Your task to perform on an android device: Go to accessibility settings Image 0: 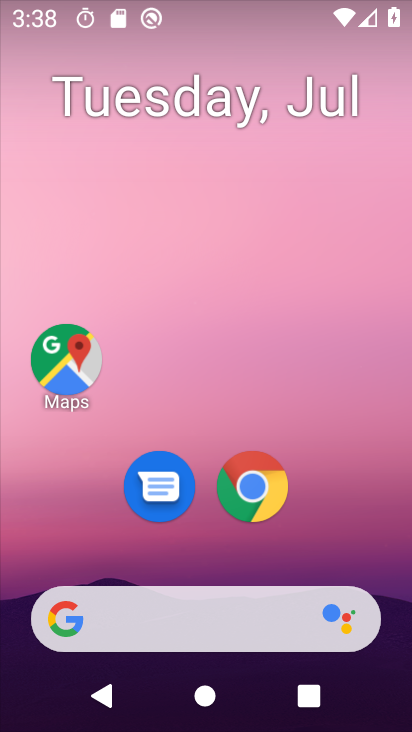
Step 0: press home button
Your task to perform on an android device: Go to accessibility settings Image 1: 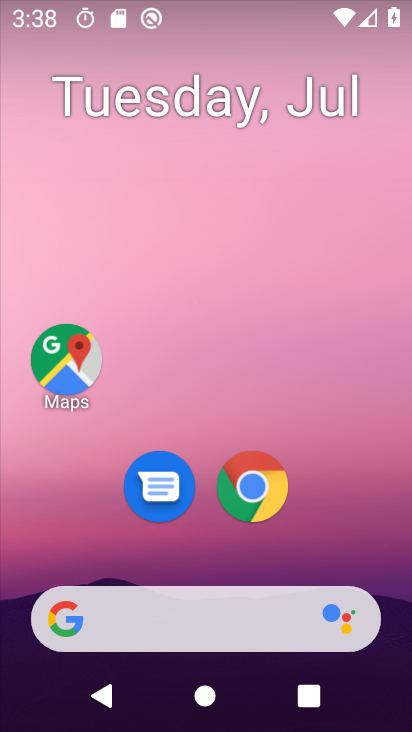
Step 1: drag from (331, 541) to (308, 28)
Your task to perform on an android device: Go to accessibility settings Image 2: 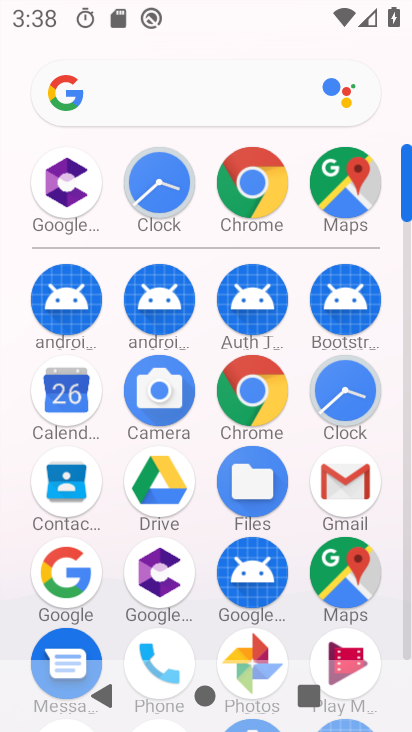
Step 2: drag from (391, 473) to (385, 196)
Your task to perform on an android device: Go to accessibility settings Image 3: 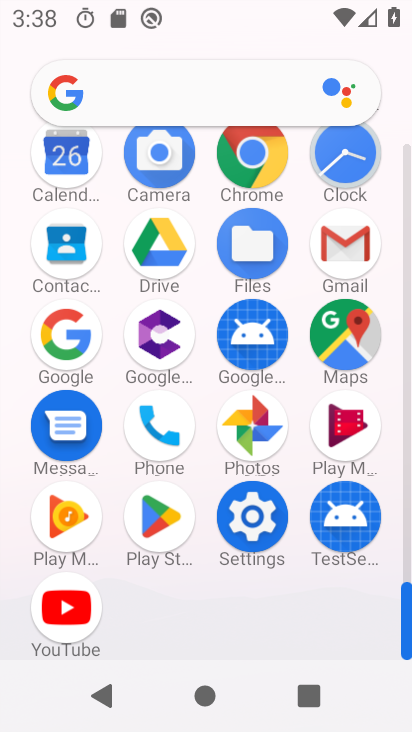
Step 3: click (254, 519)
Your task to perform on an android device: Go to accessibility settings Image 4: 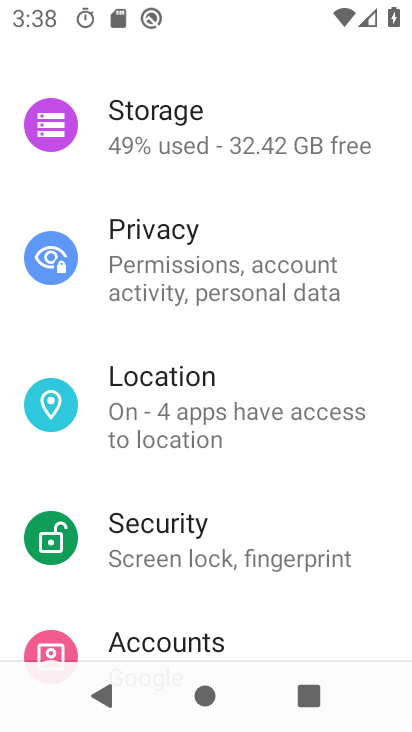
Step 4: drag from (363, 280) to (372, 387)
Your task to perform on an android device: Go to accessibility settings Image 5: 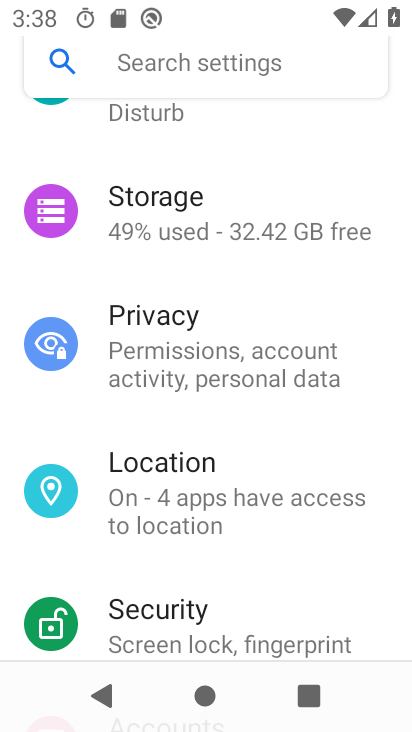
Step 5: drag from (368, 192) to (371, 332)
Your task to perform on an android device: Go to accessibility settings Image 6: 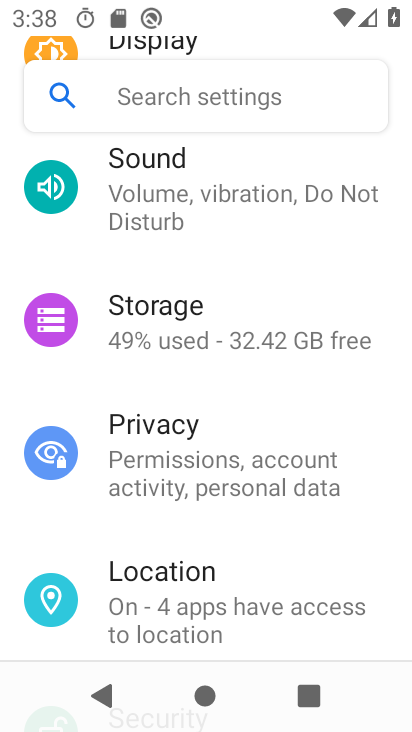
Step 6: drag from (382, 185) to (380, 353)
Your task to perform on an android device: Go to accessibility settings Image 7: 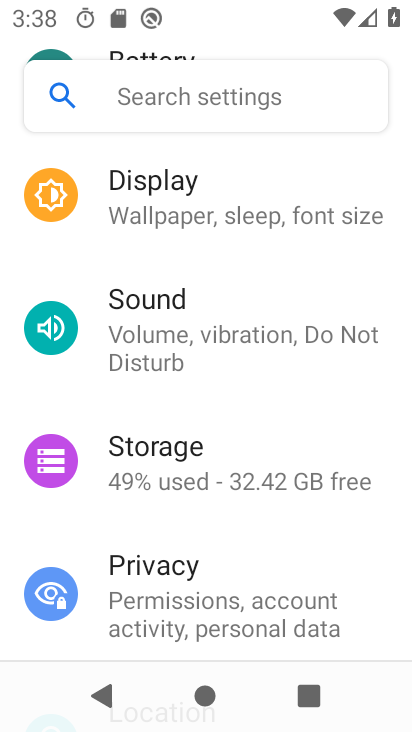
Step 7: drag from (376, 154) to (376, 331)
Your task to perform on an android device: Go to accessibility settings Image 8: 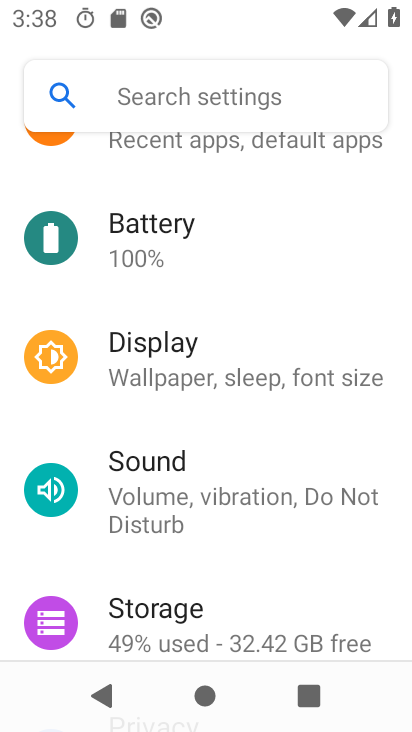
Step 8: drag from (353, 200) to (355, 332)
Your task to perform on an android device: Go to accessibility settings Image 9: 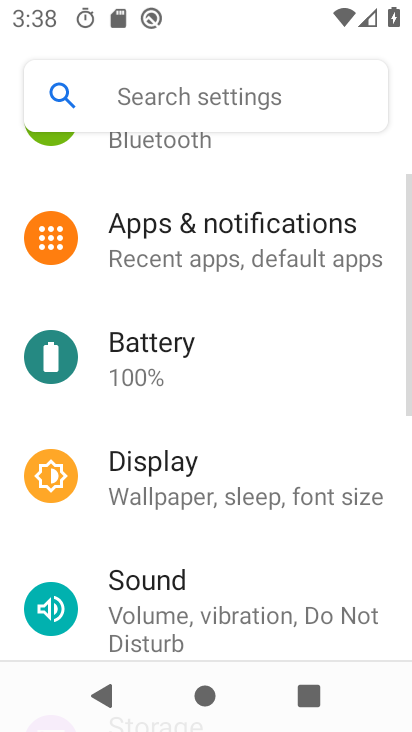
Step 9: drag from (348, 488) to (349, 369)
Your task to perform on an android device: Go to accessibility settings Image 10: 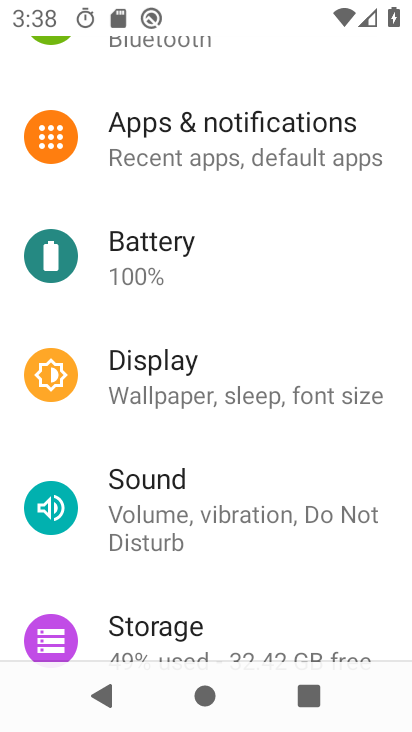
Step 10: drag from (338, 503) to (336, 353)
Your task to perform on an android device: Go to accessibility settings Image 11: 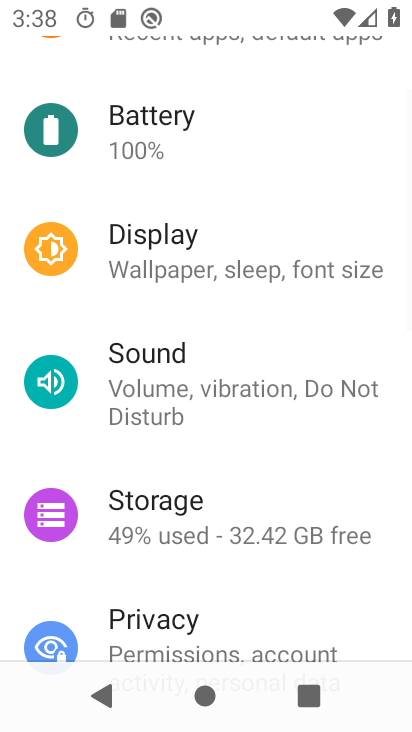
Step 11: drag from (338, 526) to (328, 403)
Your task to perform on an android device: Go to accessibility settings Image 12: 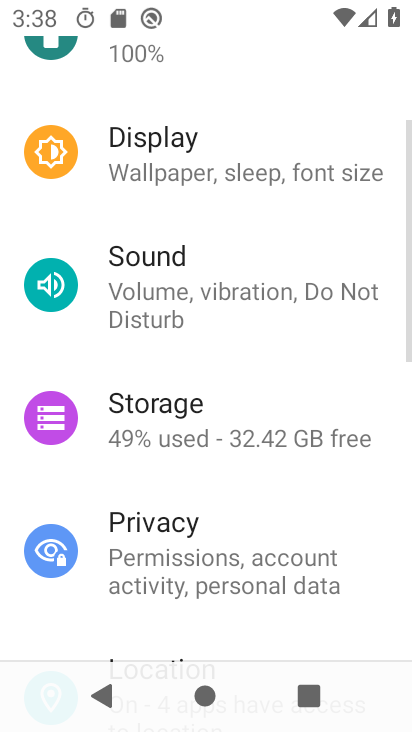
Step 12: drag from (332, 527) to (327, 419)
Your task to perform on an android device: Go to accessibility settings Image 13: 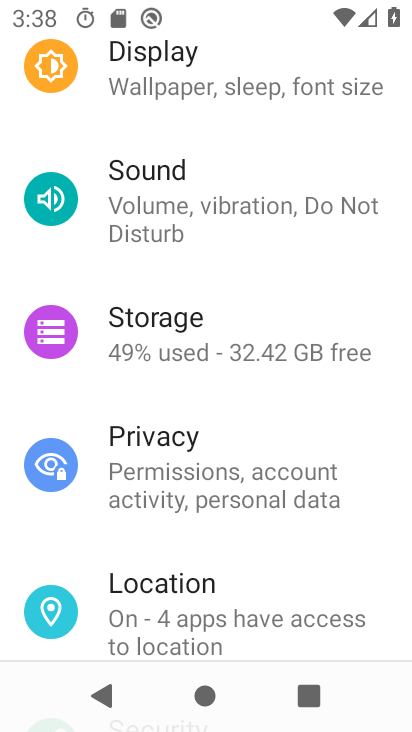
Step 13: drag from (329, 594) to (332, 444)
Your task to perform on an android device: Go to accessibility settings Image 14: 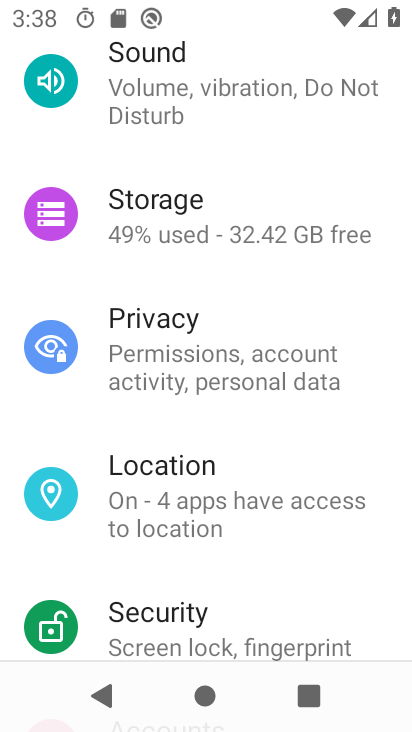
Step 14: drag from (332, 595) to (333, 430)
Your task to perform on an android device: Go to accessibility settings Image 15: 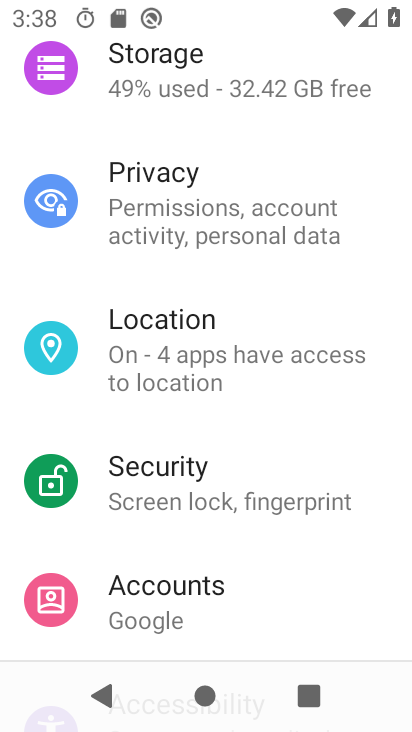
Step 15: drag from (325, 586) to (325, 445)
Your task to perform on an android device: Go to accessibility settings Image 16: 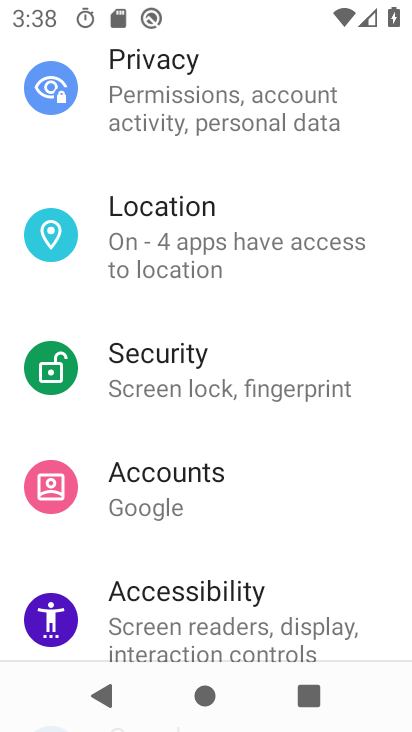
Step 16: click (314, 599)
Your task to perform on an android device: Go to accessibility settings Image 17: 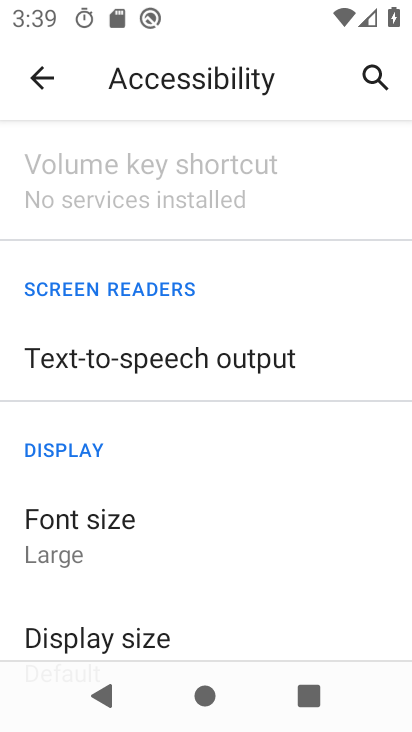
Step 17: task complete